Your task to perform on an android device: find which apps use the phone's location Image 0: 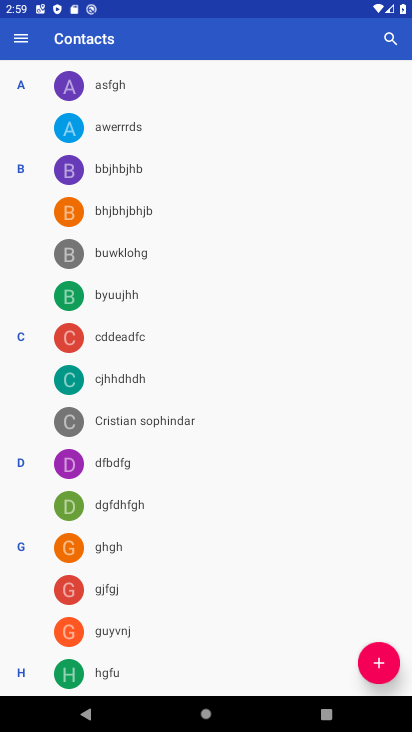
Step 0: press home button
Your task to perform on an android device: find which apps use the phone's location Image 1: 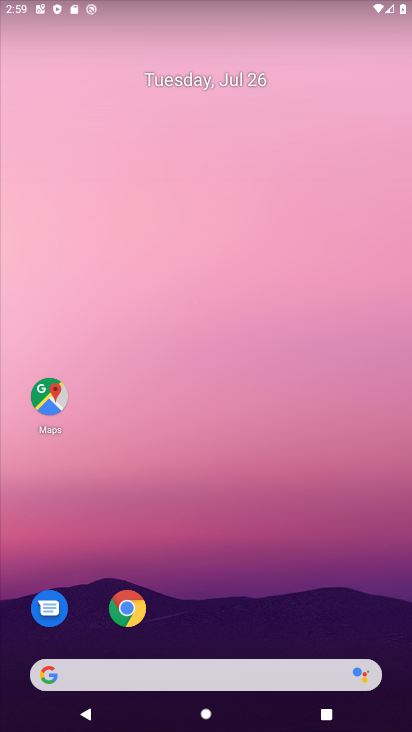
Step 1: drag from (259, 569) to (248, 153)
Your task to perform on an android device: find which apps use the phone's location Image 2: 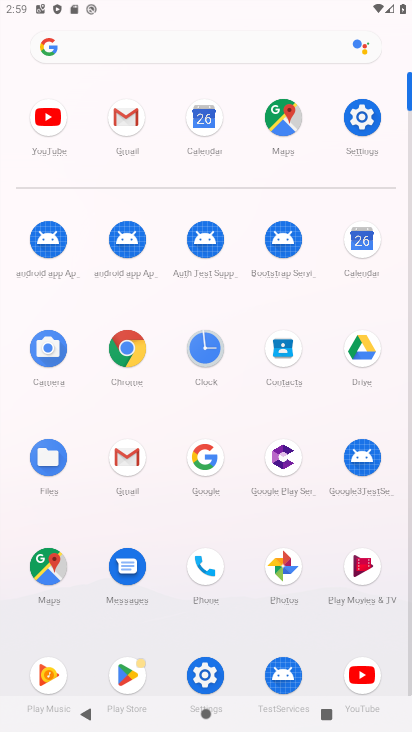
Step 2: click (361, 189)
Your task to perform on an android device: find which apps use the phone's location Image 3: 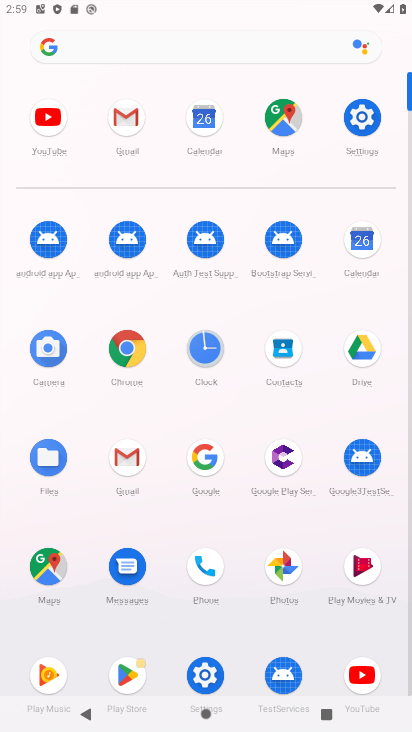
Step 3: click (361, 133)
Your task to perform on an android device: find which apps use the phone's location Image 4: 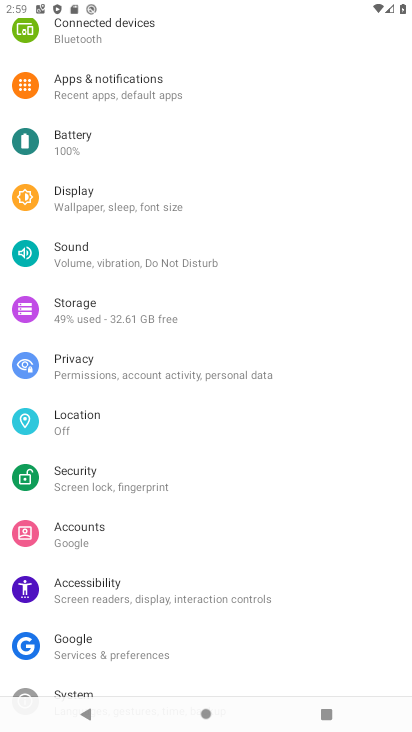
Step 4: click (96, 426)
Your task to perform on an android device: find which apps use the phone's location Image 5: 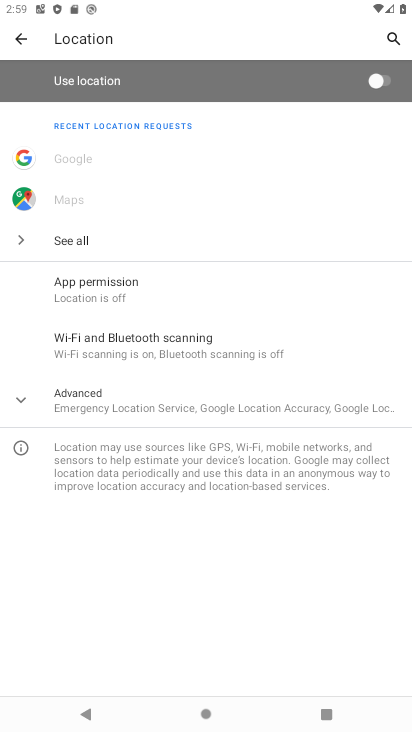
Step 5: task complete